Your task to perform on an android device: toggle notification dots Image 0: 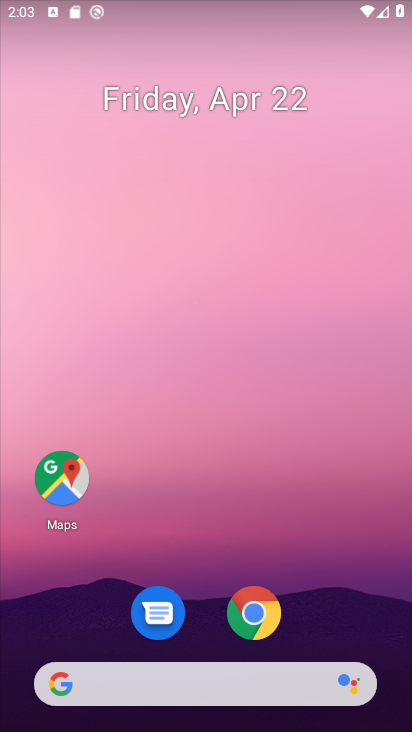
Step 0: drag from (206, 724) to (282, 158)
Your task to perform on an android device: toggle notification dots Image 1: 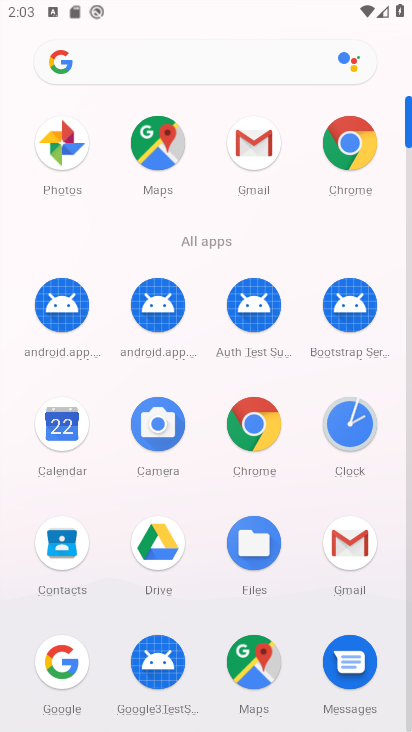
Step 1: drag from (278, 649) to (353, 153)
Your task to perform on an android device: toggle notification dots Image 2: 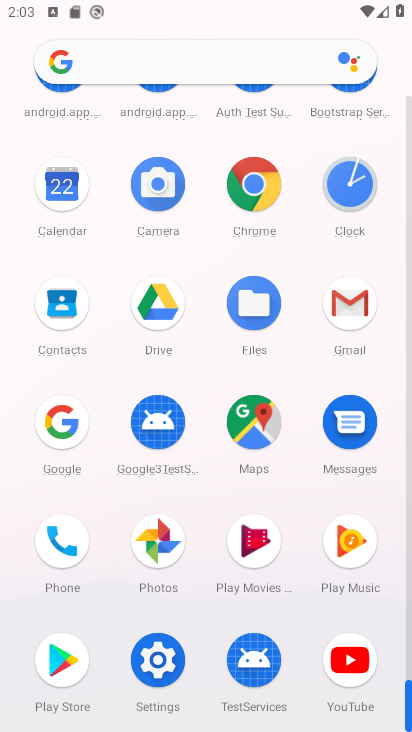
Step 2: click (155, 652)
Your task to perform on an android device: toggle notification dots Image 3: 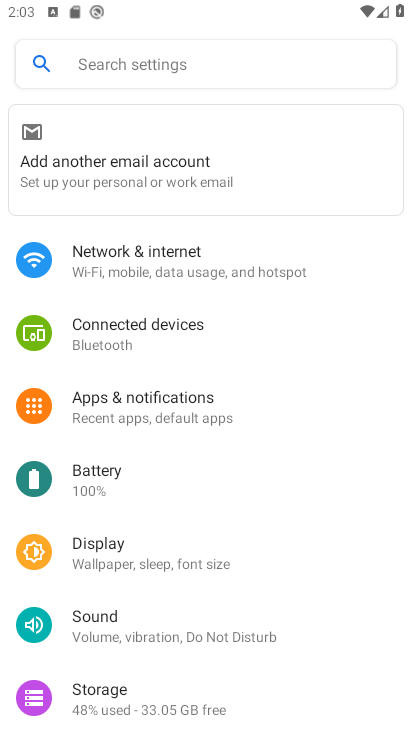
Step 3: click (175, 399)
Your task to perform on an android device: toggle notification dots Image 4: 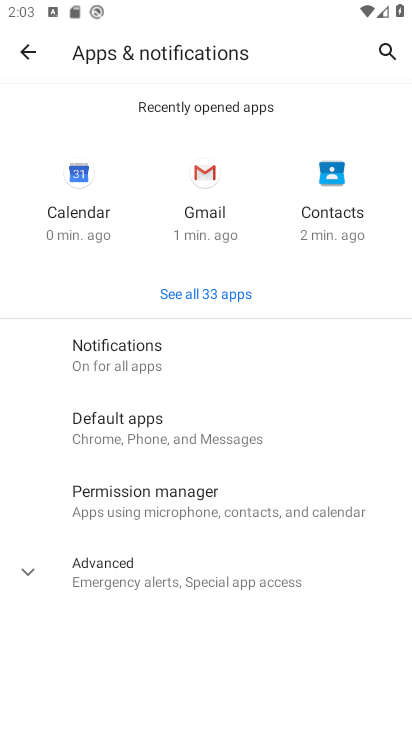
Step 4: click (260, 360)
Your task to perform on an android device: toggle notification dots Image 5: 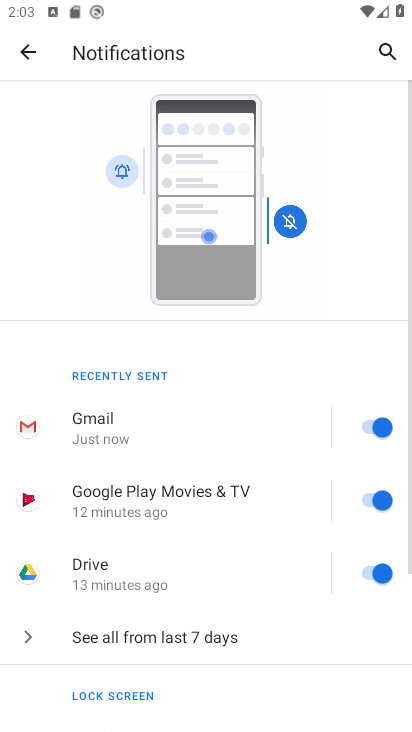
Step 5: drag from (288, 650) to (387, 12)
Your task to perform on an android device: toggle notification dots Image 6: 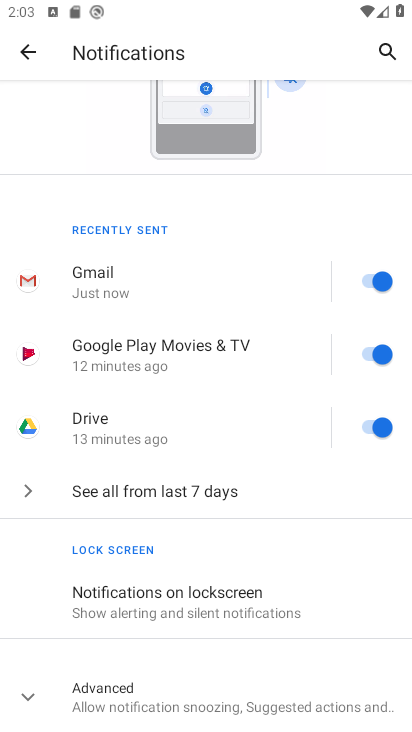
Step 6: click (214, 687)
Your task to perform on an android device: toggle notification dots Image 7: 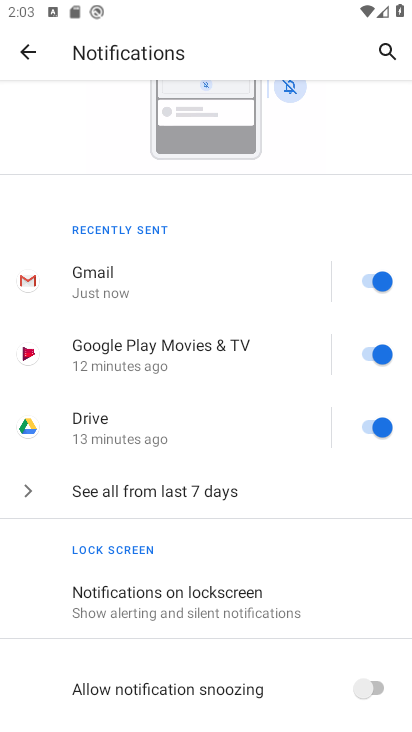
Step 7: drag from (286, 615) to (373, 66)
Your task to perform on an android device: toggle notification dots Image 8: 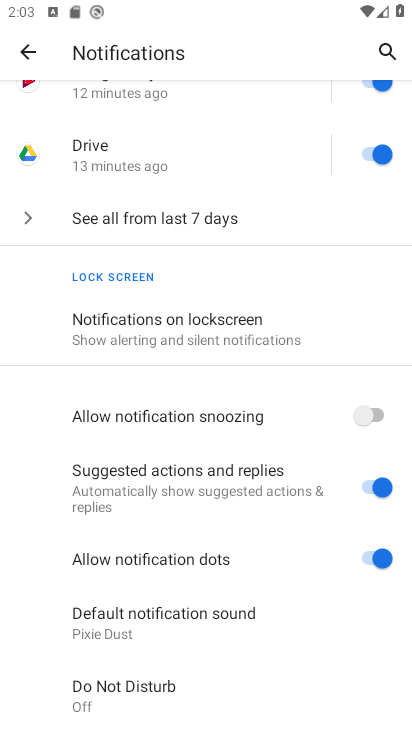
Step 8: click (384, 559)
Your task to perform on an android device: toggle notification dots Image 9: 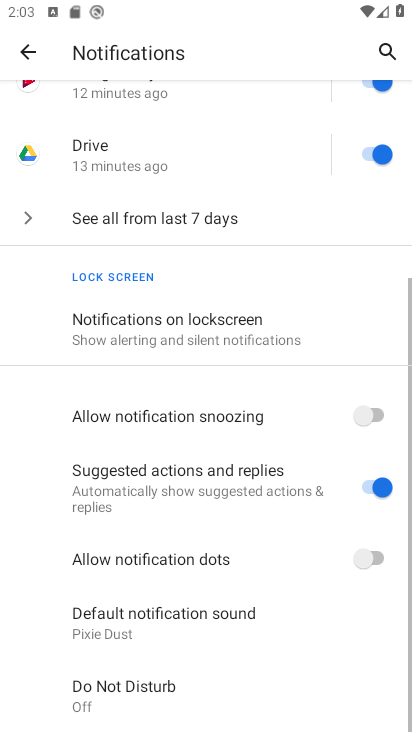
Step 9: task complete